Your task to perform on an android device: turn on priority inbox in the gmail app Image 0: 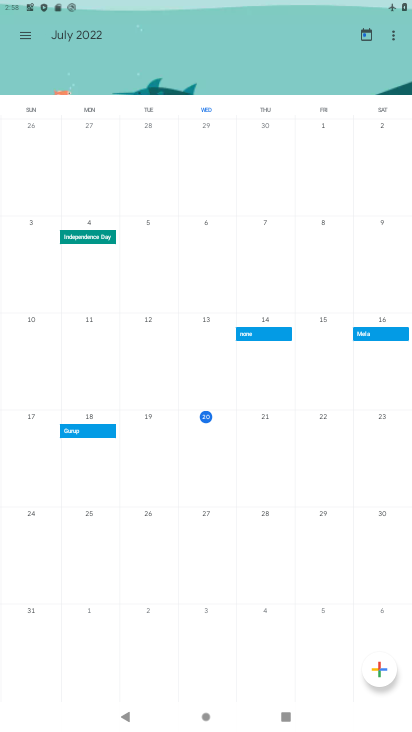
Step 0: press home button
Your task to perform on an android device: turn on priority inbox in the gmail app Image 1: 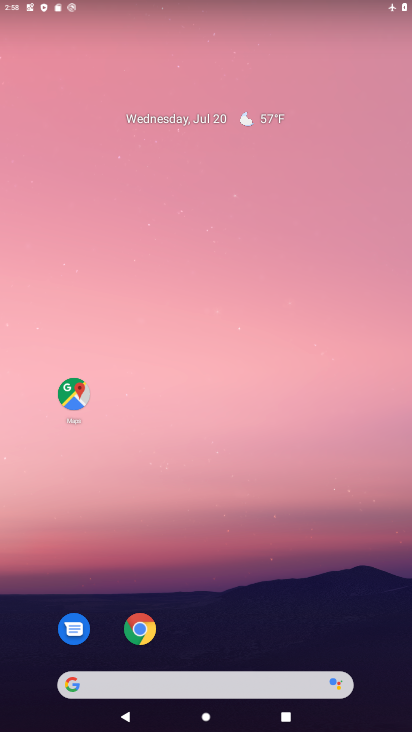
Step 1: drag from (223, 580) to (226, 203)
Your task to perform on an android device: turn on priority inbox in the gmail app Image 2: 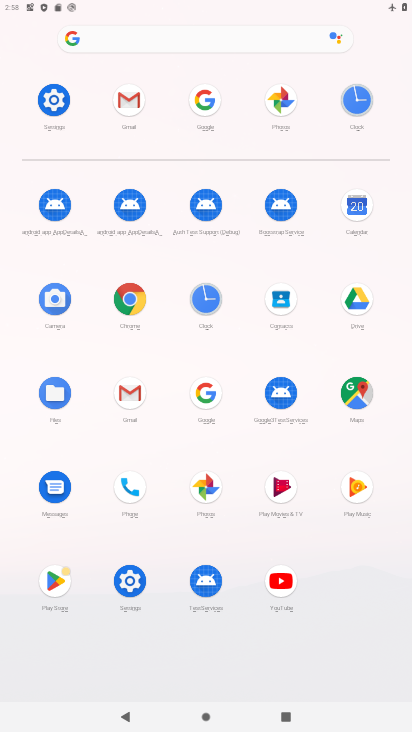
Step 2: click (139, 115)
Your task to perform on an android device: turn on priority inbox in the gmail app Image 3: 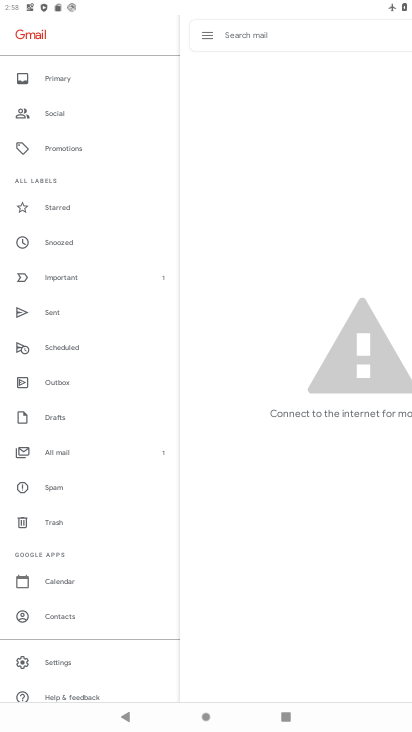
Step 3: click (61, 657)
Your task to perform on an android device: turn on priority inbox in the gmail app Image 4: 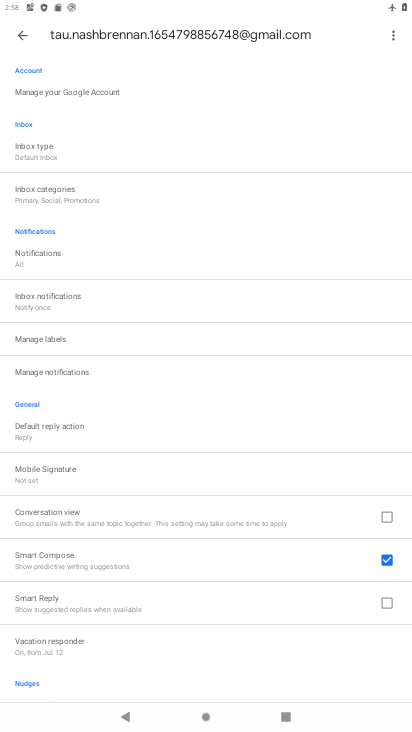
Step 4: click (41, 153)
Your task to perform on an android device: turn on priority inbox in the gmail app Image 5: 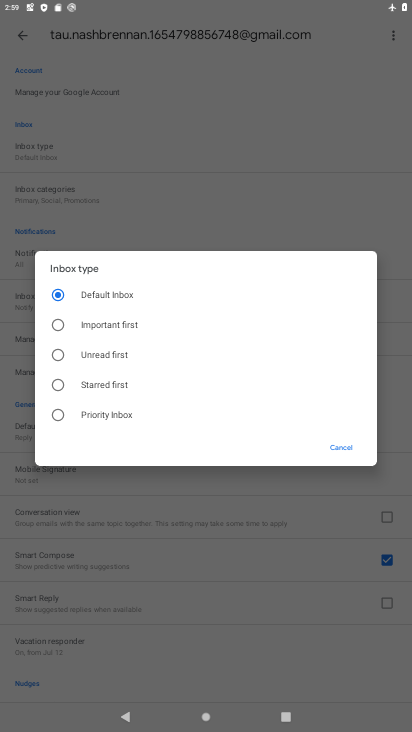
Step 5: click (118, 420)
Your task to perform on an android device: turn on priority inbox in the gmail app Image 6: 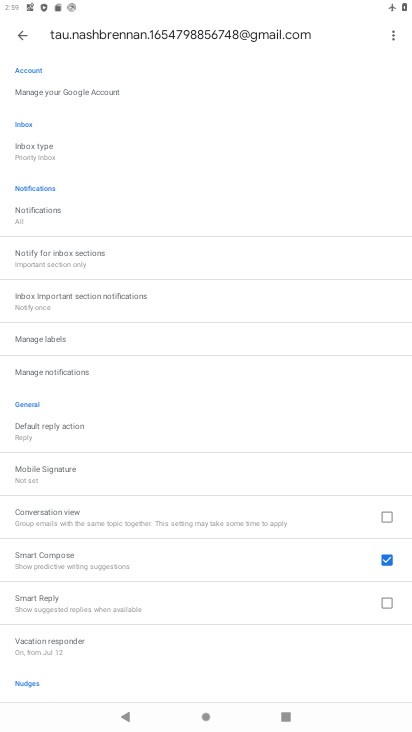
Step 6: task complete